Your task to perform on an android device: check the backup settings in the google photos Image 0: 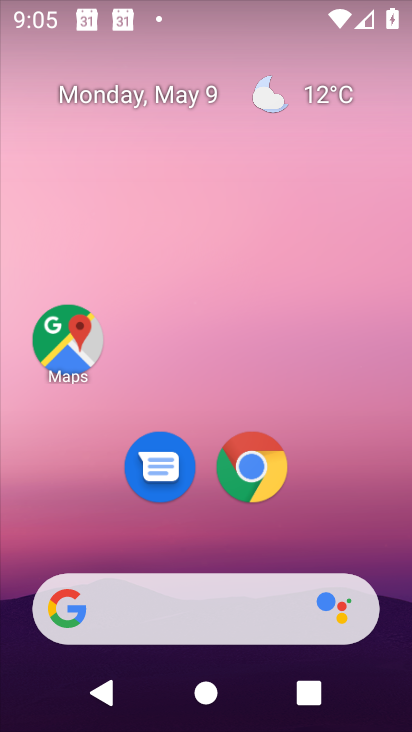
Step 0: drag from (384, 577) to (398, 0)
Your task to perform on an android device: check the backup settings in the google photos Image 1: 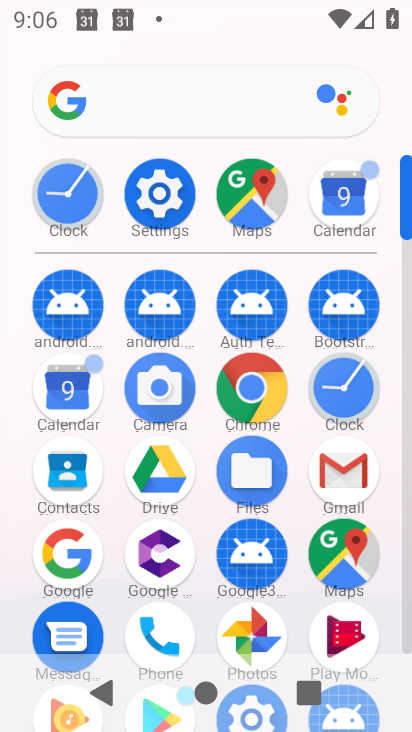
Step 1: click (248, 641)
Your task to perform on an android device: check the backup settings in the google photos Image 2: 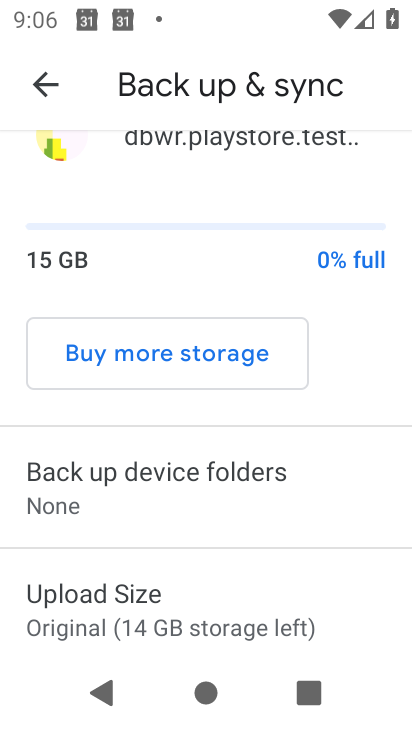
Step 2: task complete